Your task to perform on an android device: turn on priority inbox in the gmail app Image 0: 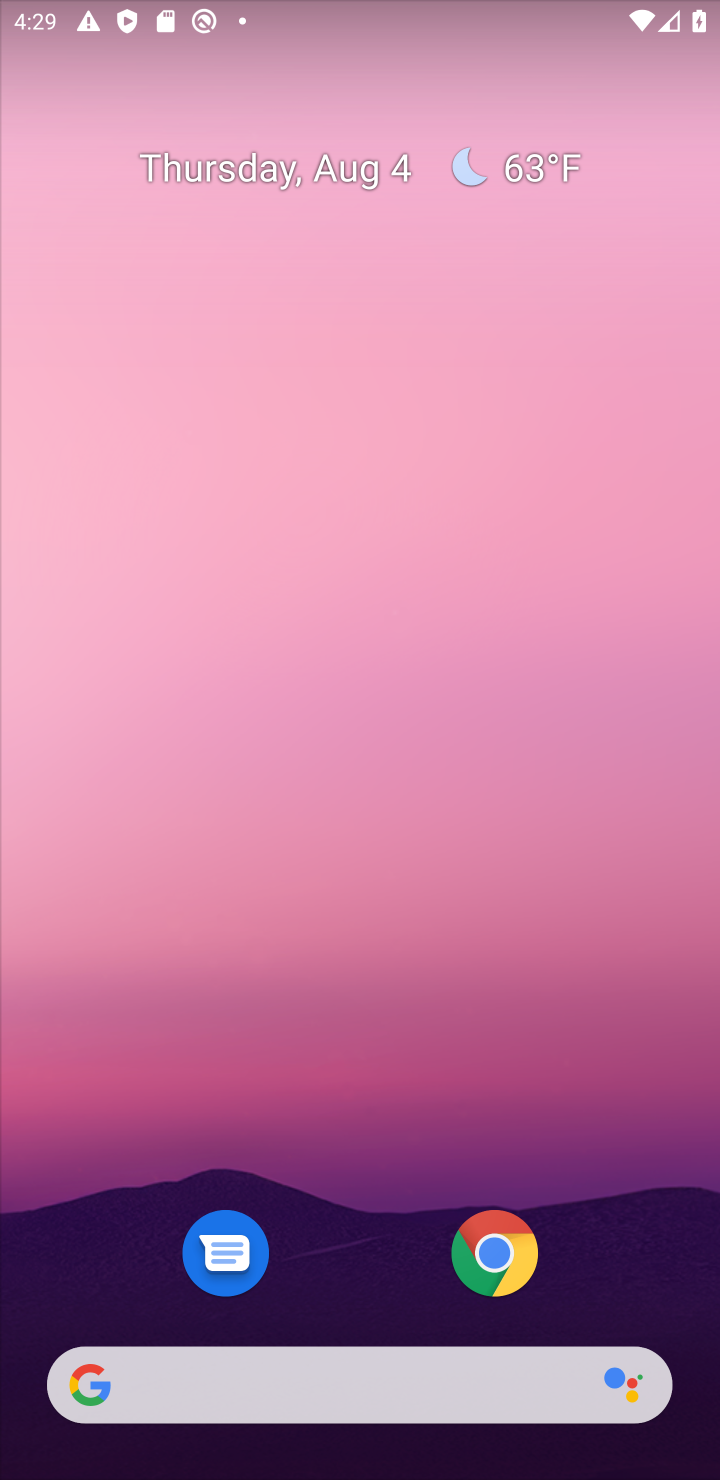
Step 0: press home button
Your task to perform on an android device: turn on priority inbox in the gmail app Image 1: 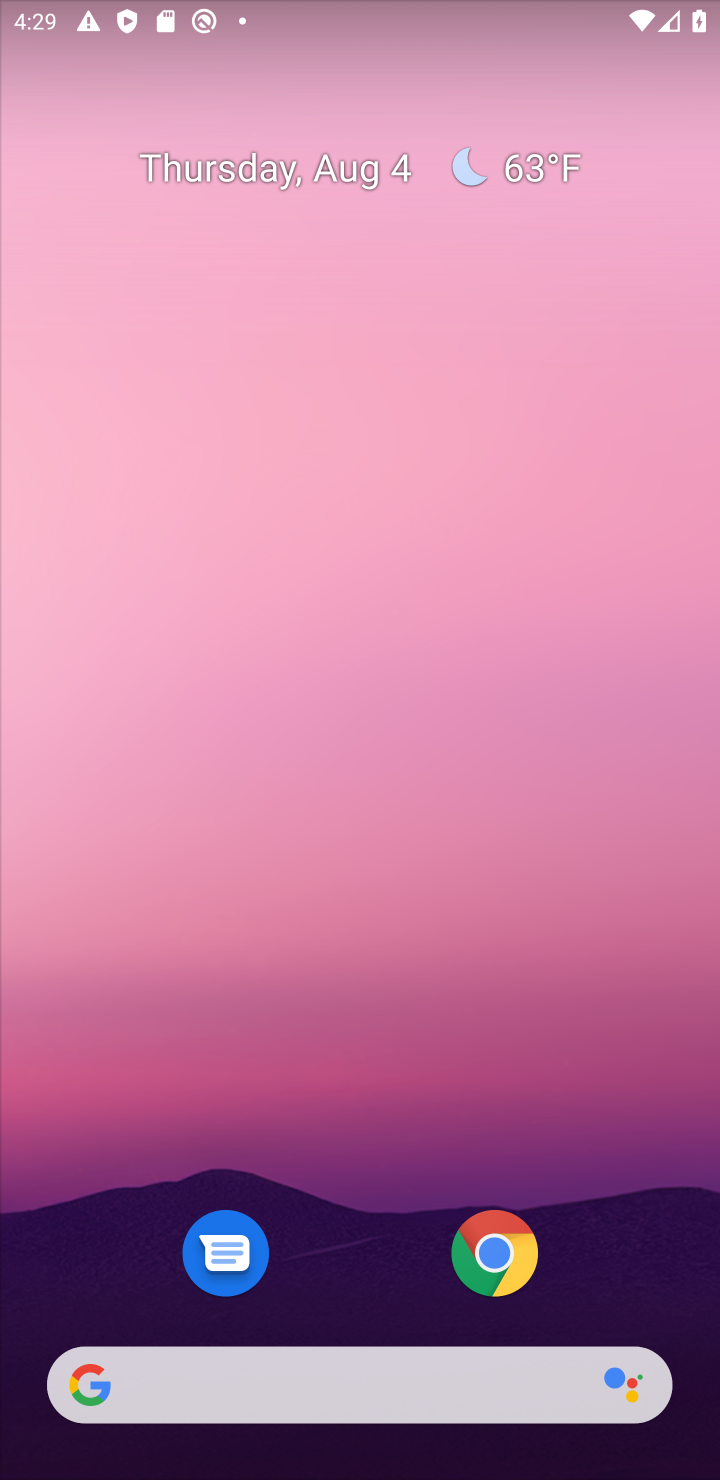
Step 1: drag from (331, 1085) to (348, 828)
Your task to perform on an android device: turn on priority inbox in the gmail app Image 2: 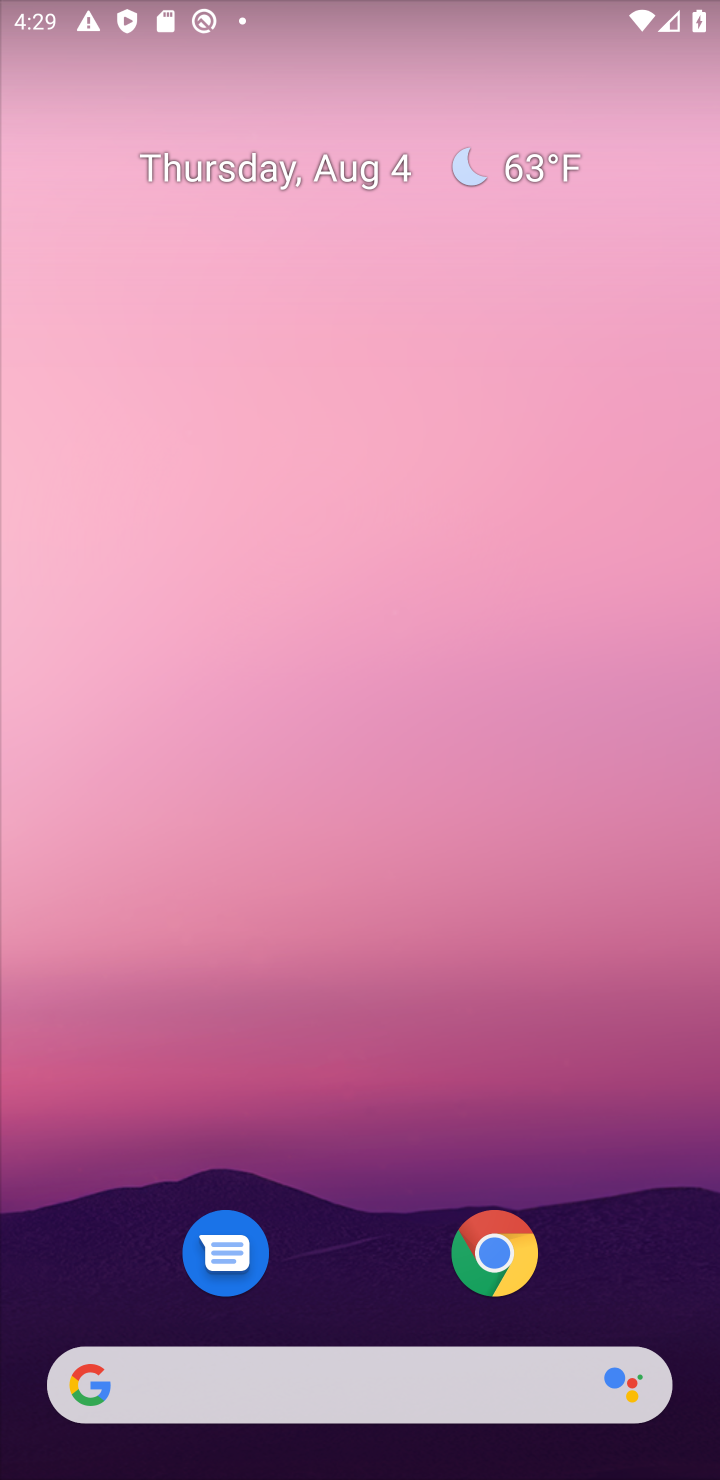
Step 2: drag from (377, 1079) to (451, 648)
Your task to perform on an android device: turn on priority inbox in the gmail app Image 3: 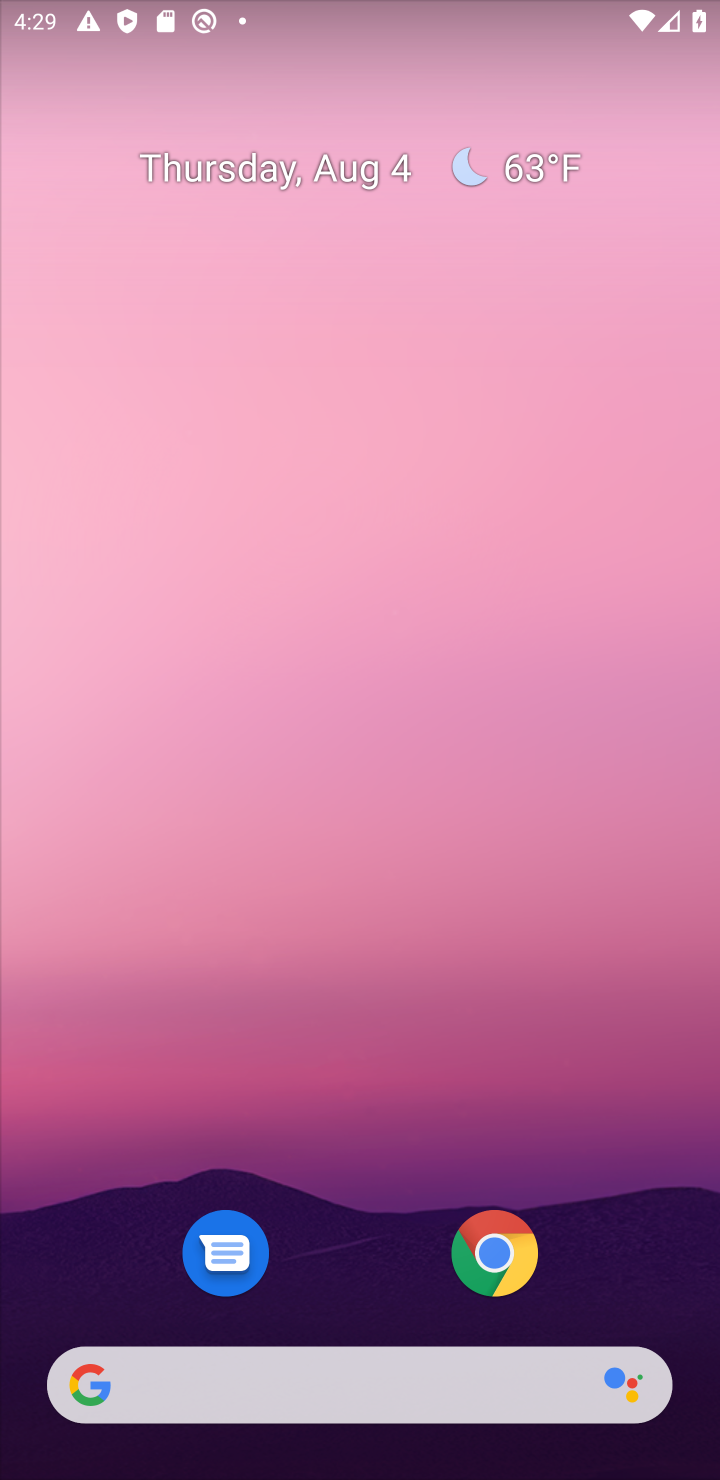
Step 3: drag from (271, 1264) to (354, 640)
Your task to perform on an android device: turn on priority inbox in the gmail app Image 4: 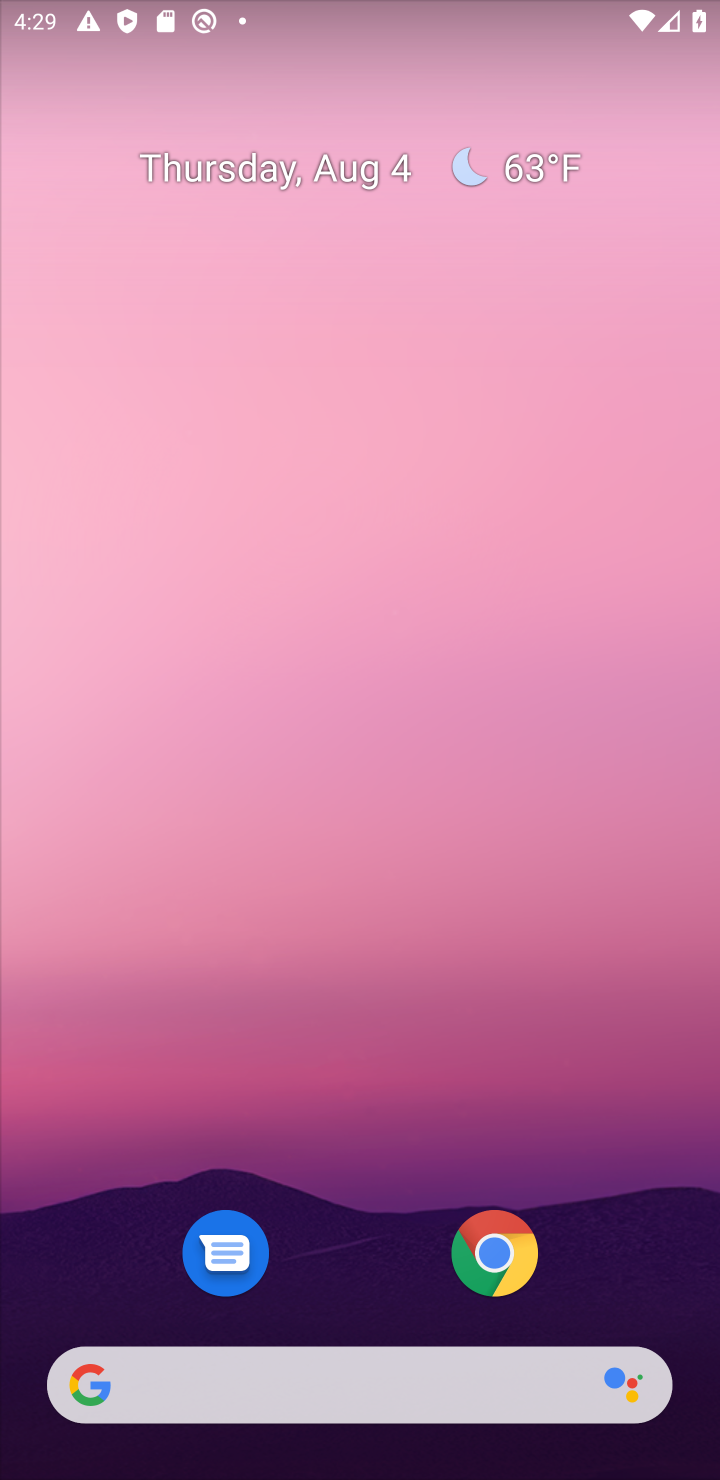
Step 4: drag from (387, 1303) to (553, 587)
Your task to perform on an android device: turn on priority inbox in the gmail app Image 5: 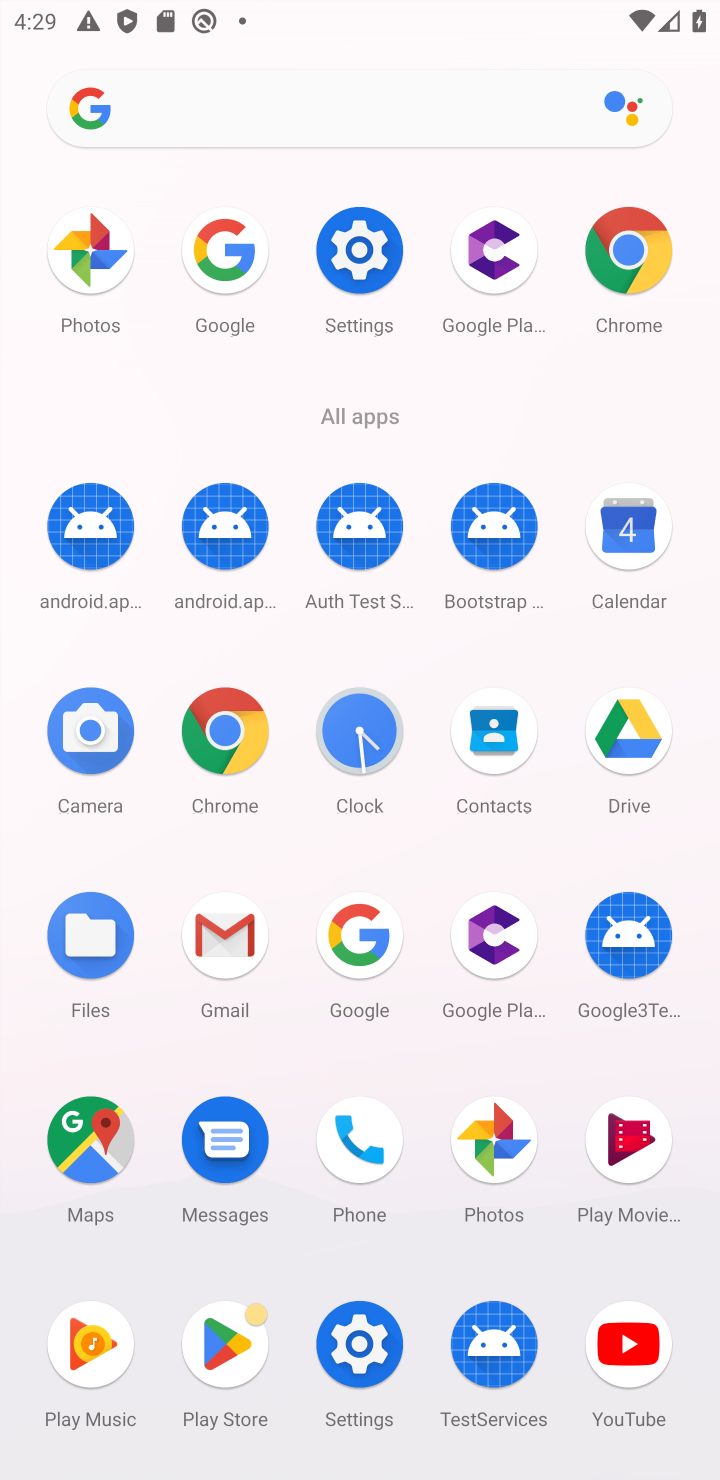
Step 5: click (237, 947)
Your task to perform on an android device: turn on priority inbox in the gmail app Image 6: 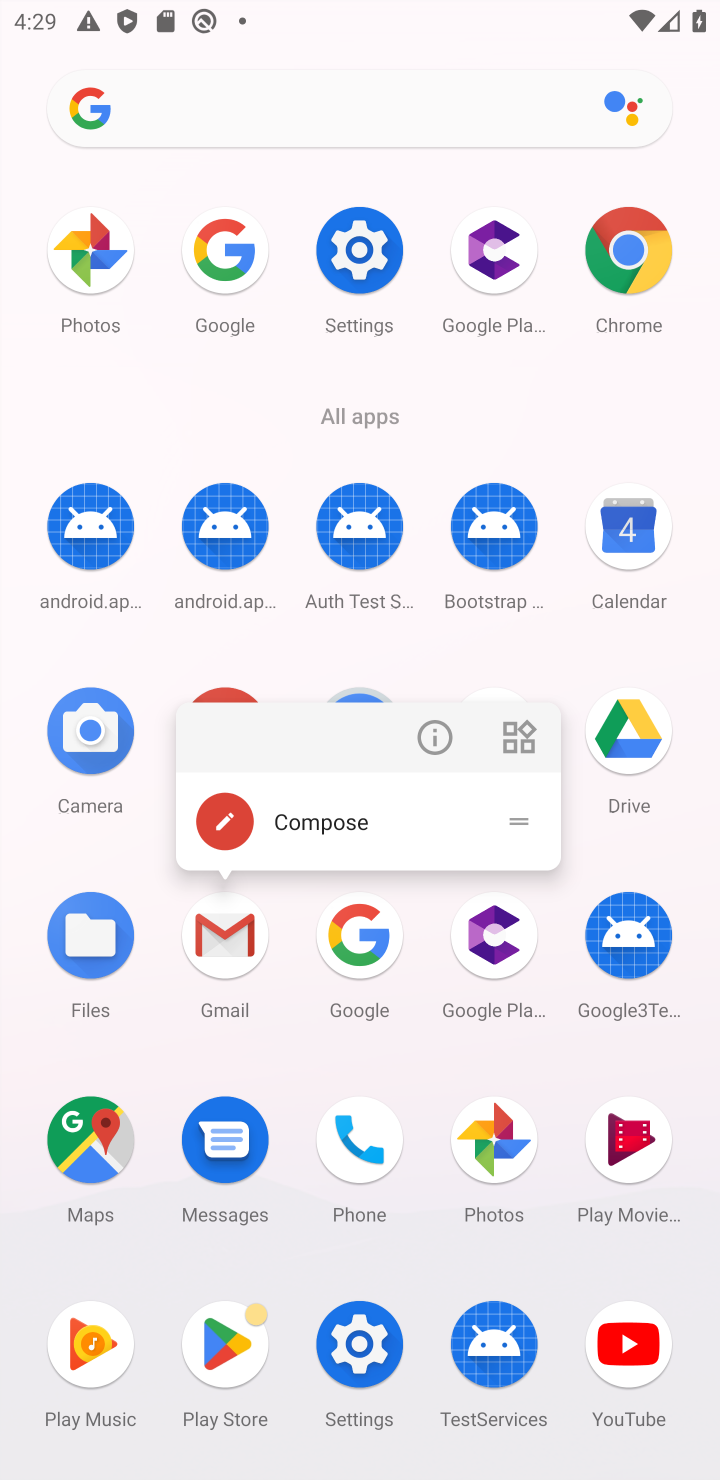
Step 6: click (255, 966)
Your task to perform on an android device: turn on priority inbox in the gmail app Image 7: 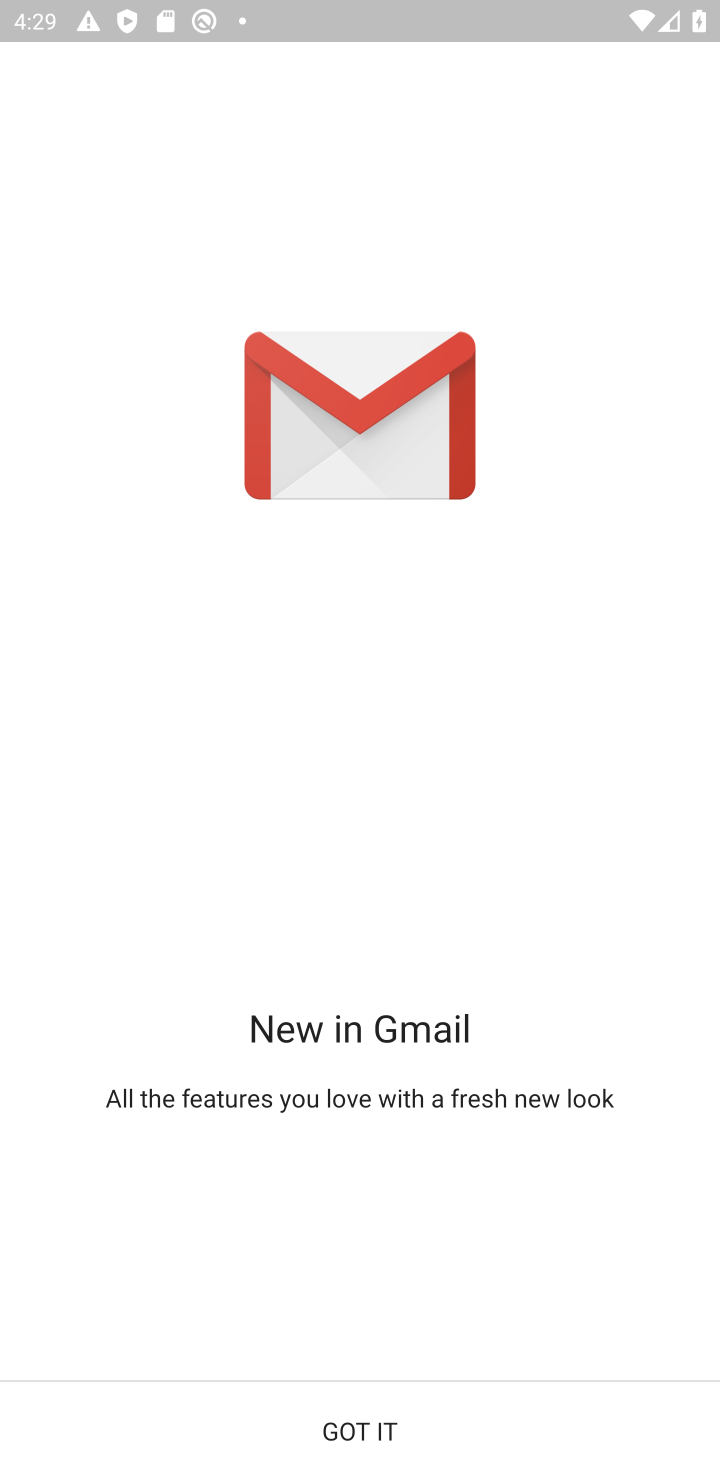
Step 7: click (335, 1425)
Your task to perform on an android device: turn on priority inbox in the gmail app Image 8: 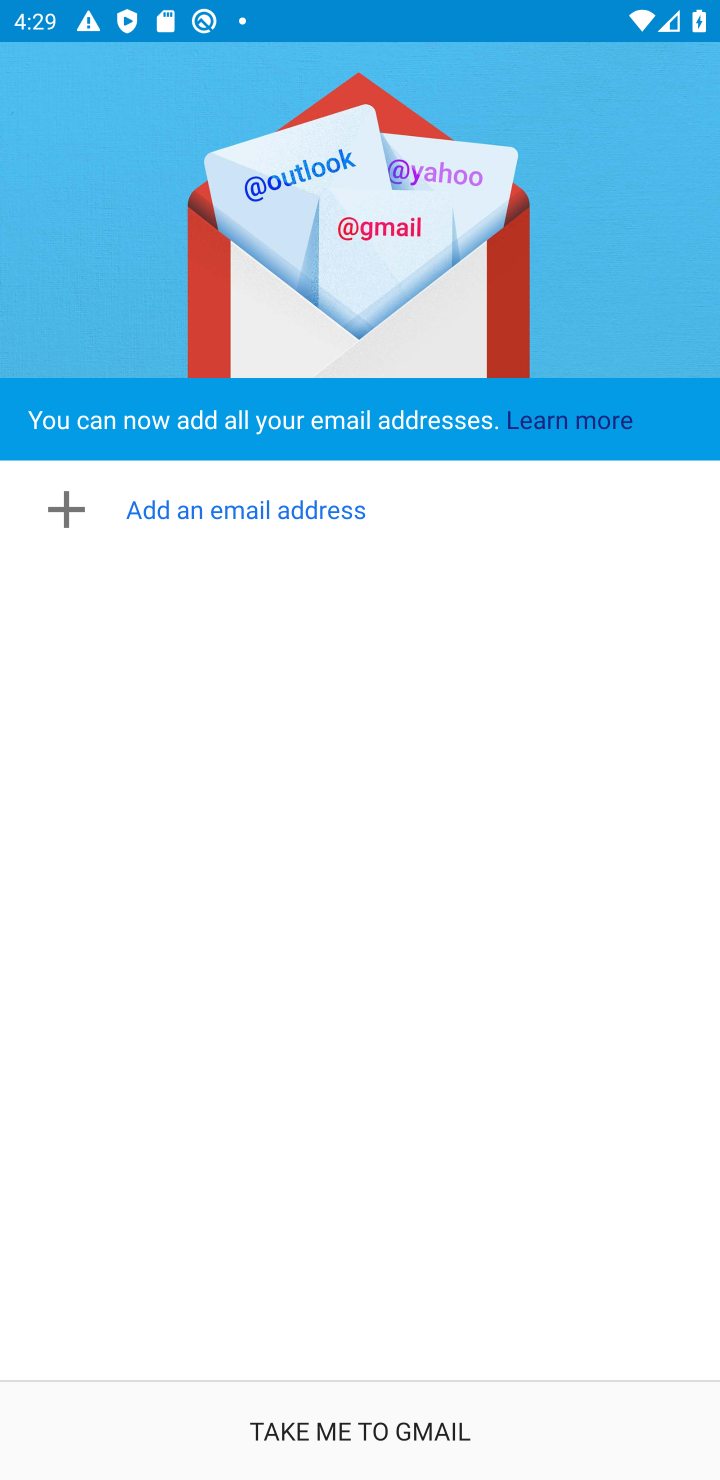
Step 8: click (335, 1425)
Your task to perform on an android device: turn on priority inbox in the gmail app Image 9: 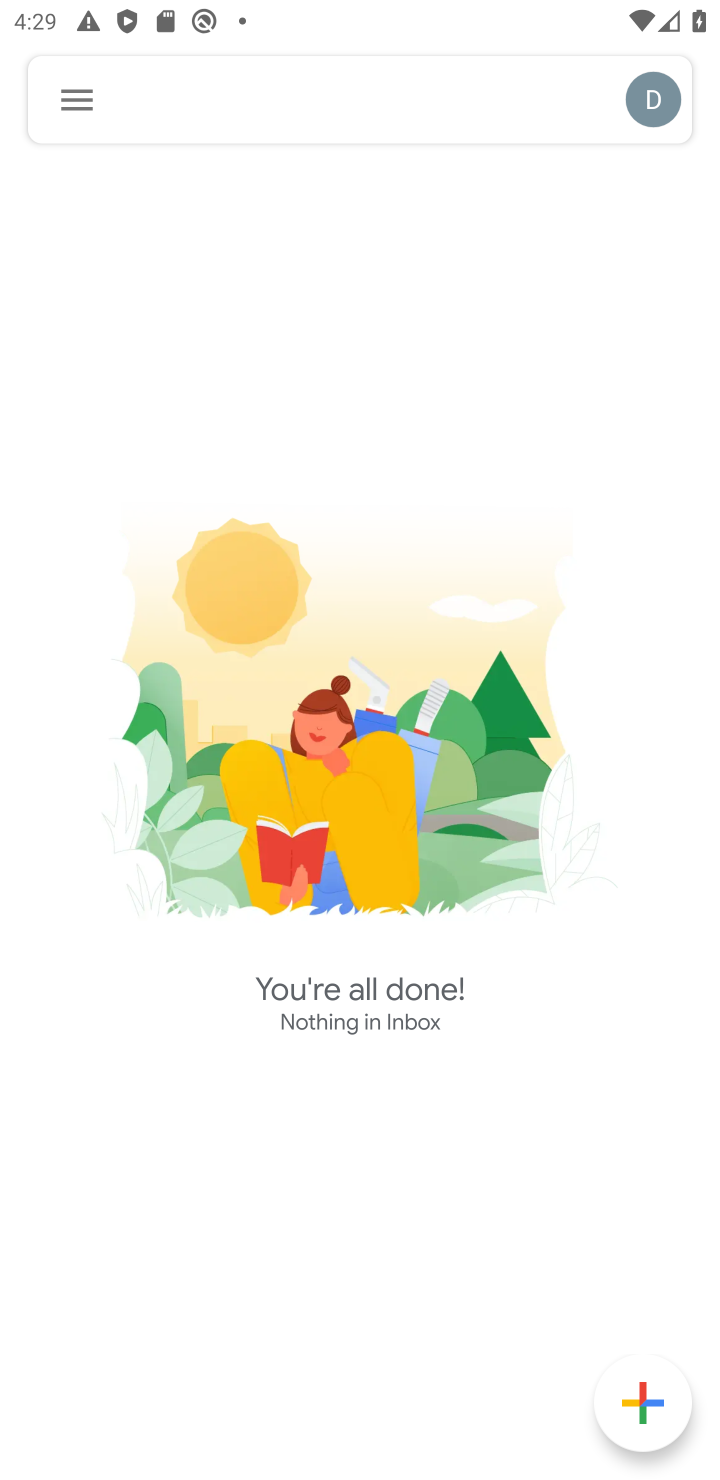
Step 9: click (88, 114)
Your task to perform on an android device: turn on priority inbox in the gmail app Image 10: 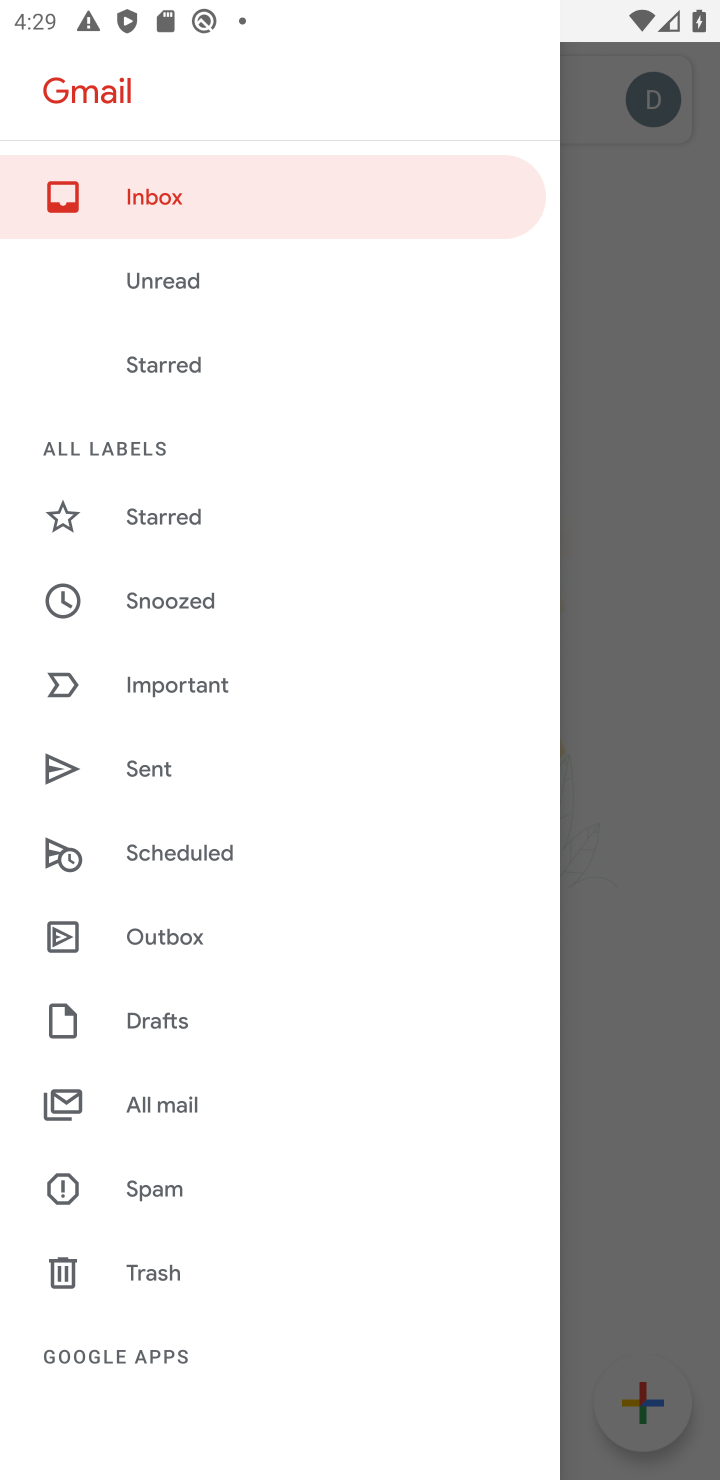
Step 10: drag from (162, 1277) to (229, 594)
Your task to perform on an android device: turn on priority inbox in the gmail app Image 11: 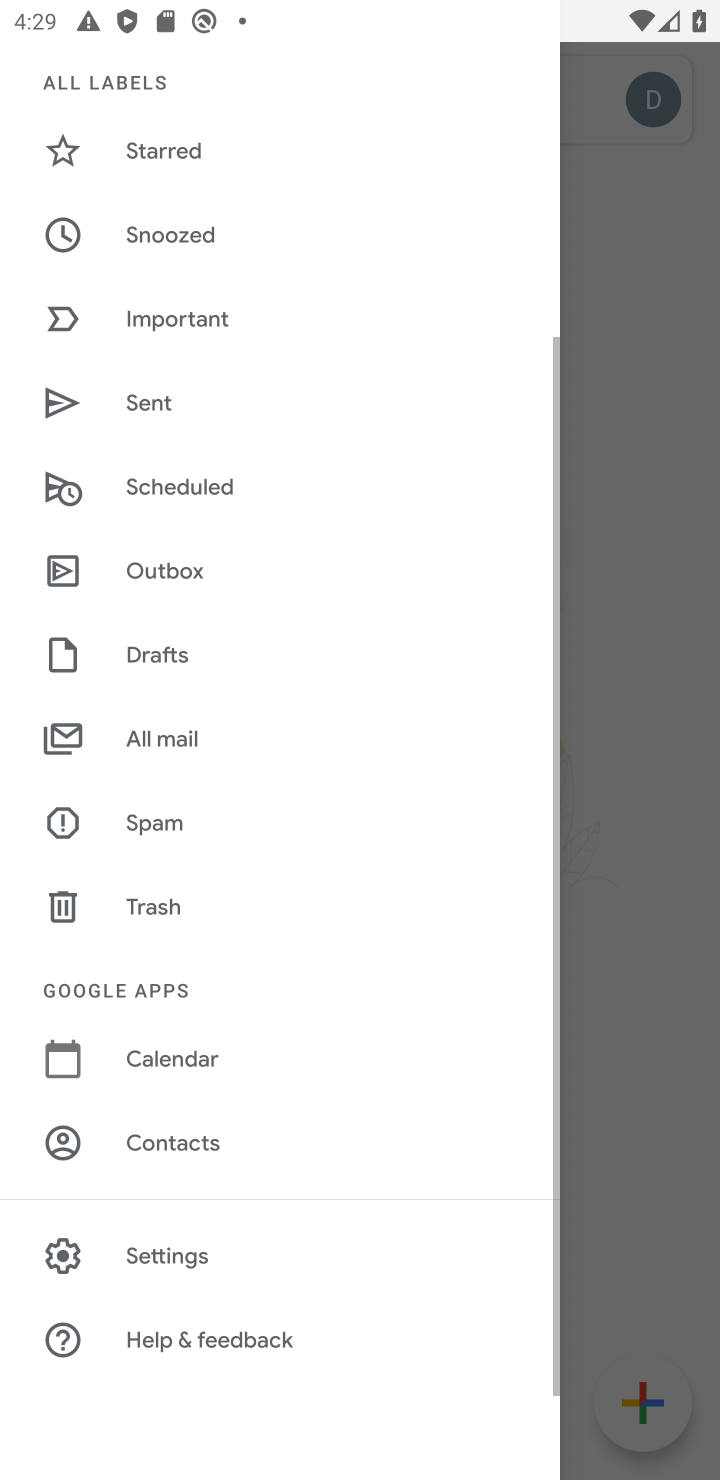
Step 11: click (184, 1264)
Your task to perform on an android device: turn on priority inbox in the gmail app Image 12: 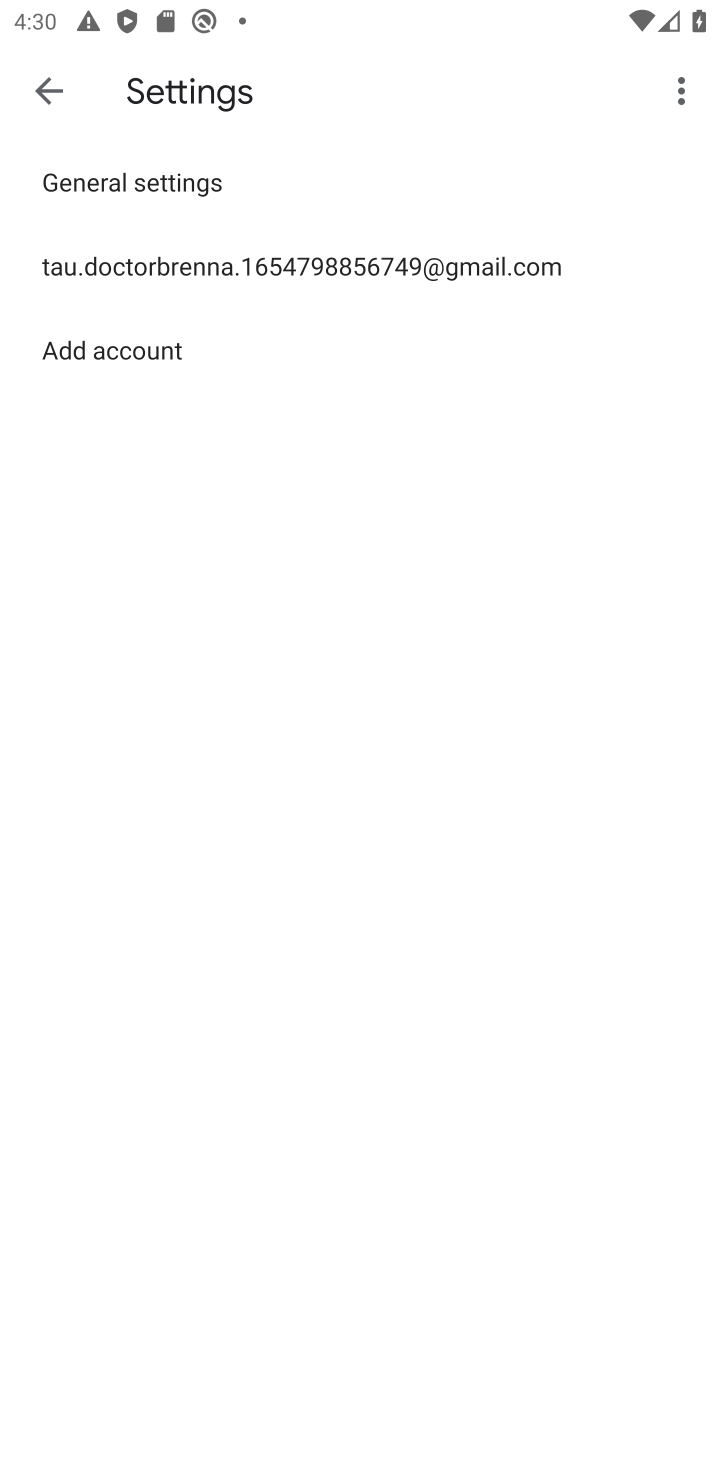
Step 12: click (300, 273)
Your task to perform on an android device: turn on priority inbox in the gmail app Image 13: 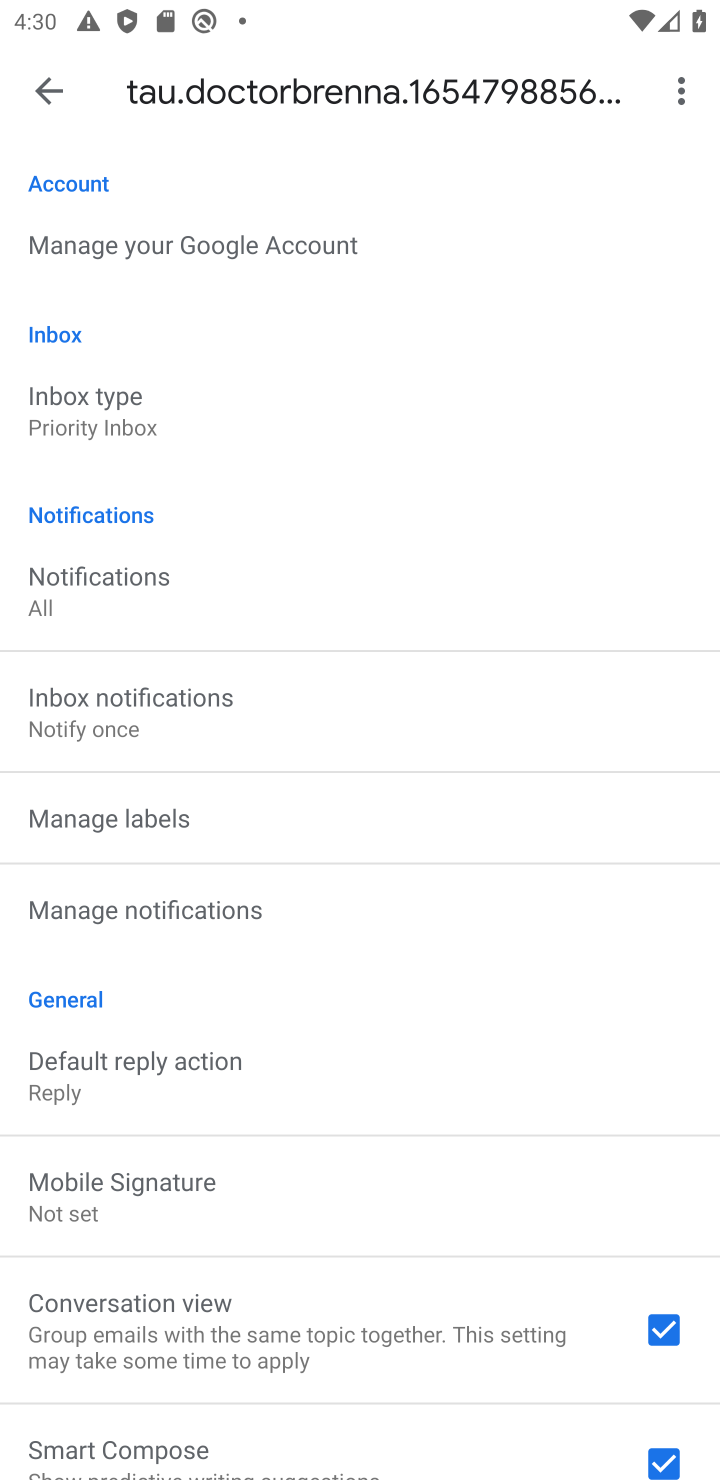
Step 13: task complete